Your task to perform on an android device: set an alarm Image 0: 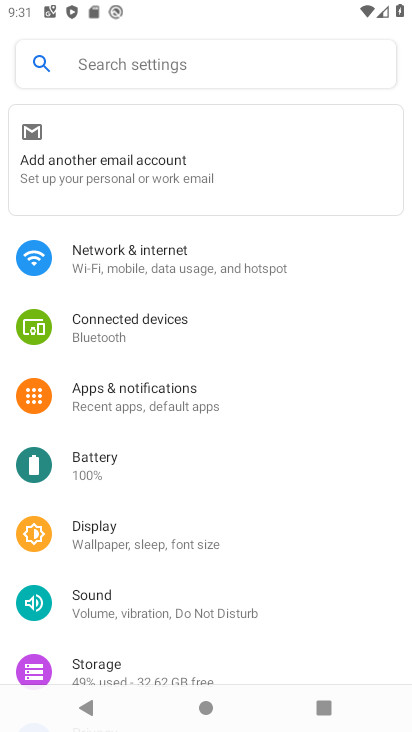
Step 0: press home button
Your task to perform on an android device: set an alarm Image 1: 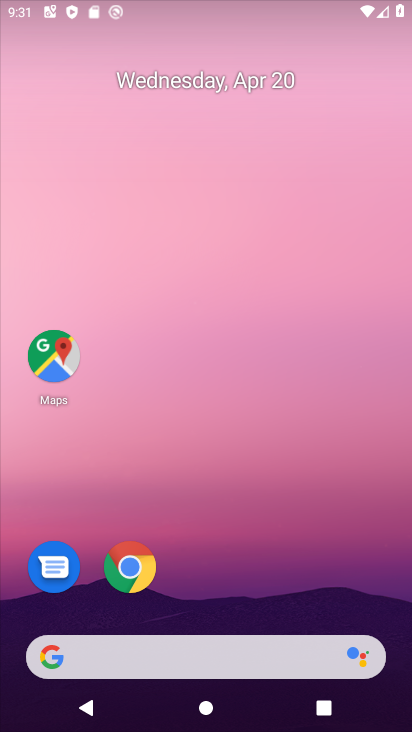
Step 1: drag from (198, 567) to (192, 308)
Your task to perform on an android device: set an alarm Image 2: 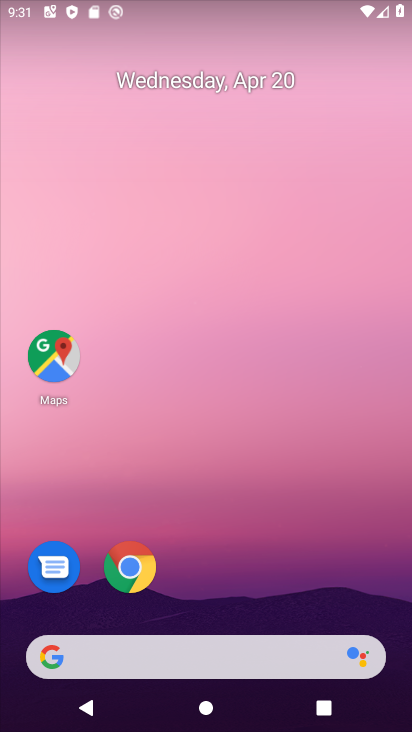
Step 2: drag from (186, 618) to (257, 240)
Your task to perform on an android device: set an alarm Image 3: 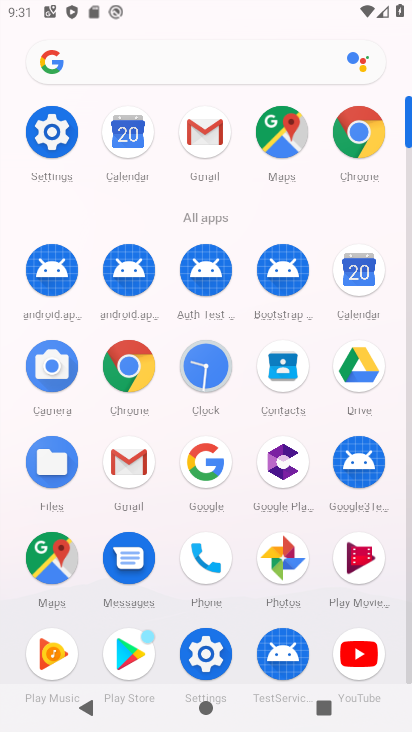
Step 3: click (210, 371)
Your task to perform on an android device: set an alarm Image 4: 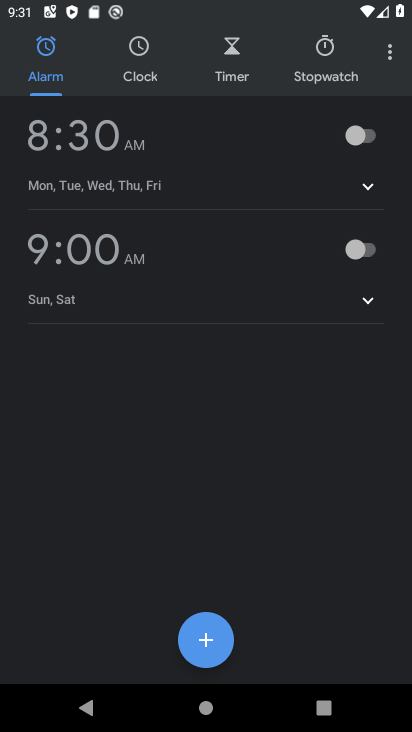
Step 4: click (369, 147)
Your task to perform on an android device: set an alarm Image 5: 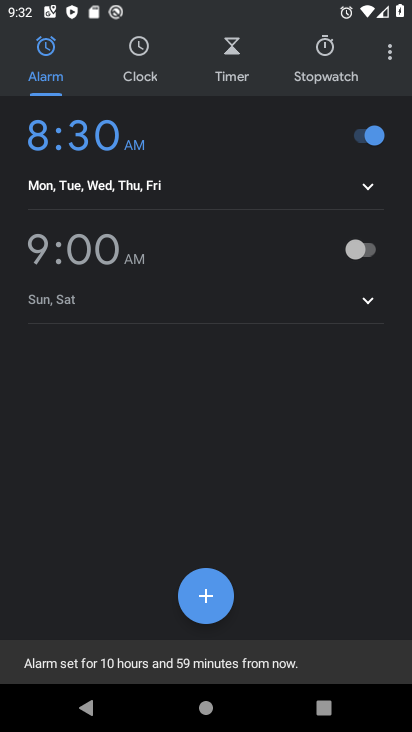
Step 5: click (362, 181)
Your task to perform on an android device: set an alarm Image 6: 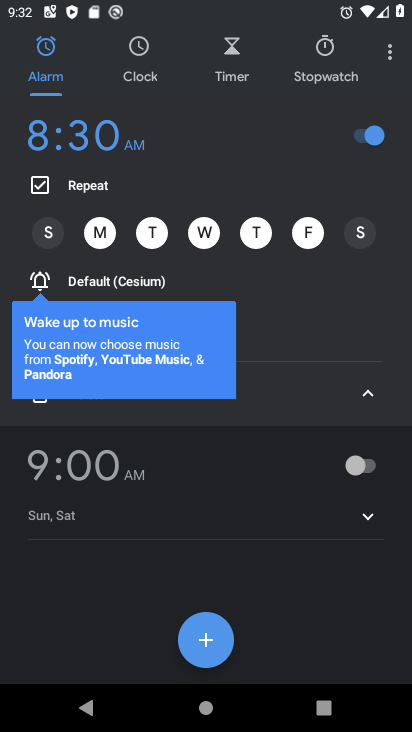
Step 6: click (45, 237)
Your task to perform on an android device: set an alarm Image 7: 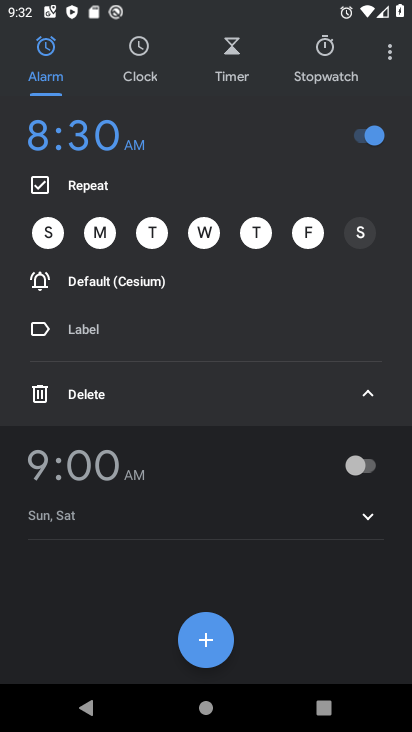
Step 7: click (354, 228)
Your task to perform on an android device: set an alarm Image 8: 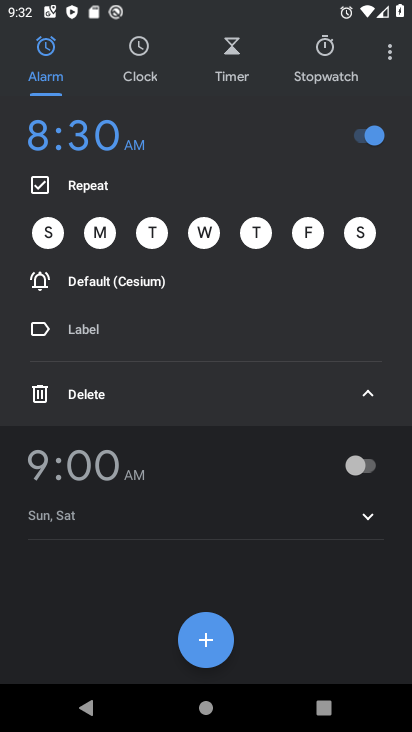
Step 8: click (370, 392)
Your task to perform on an android device: set an alarm Image 9: 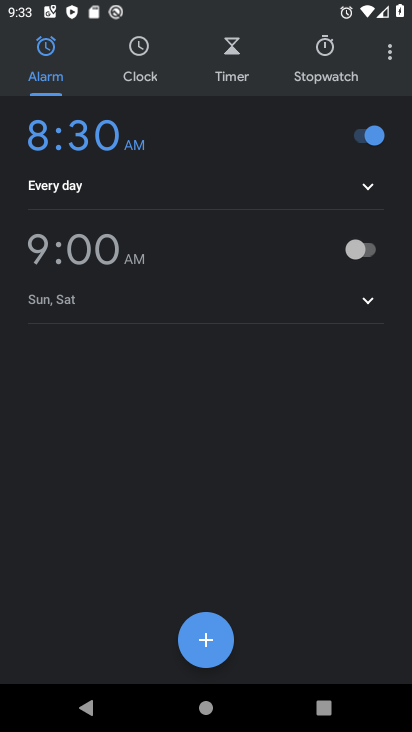
Step 9: task complete